Your task to perform on an android device: Open the stopwatch Image 0: 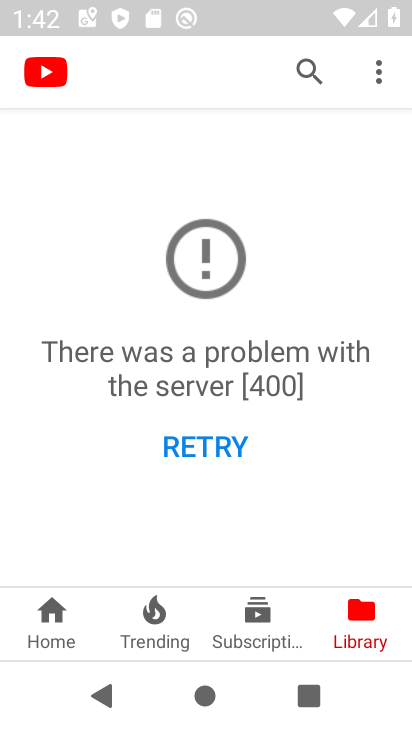
Step 0: press back button
Your task to perform on an android device: Open the stopwatch Image 1: 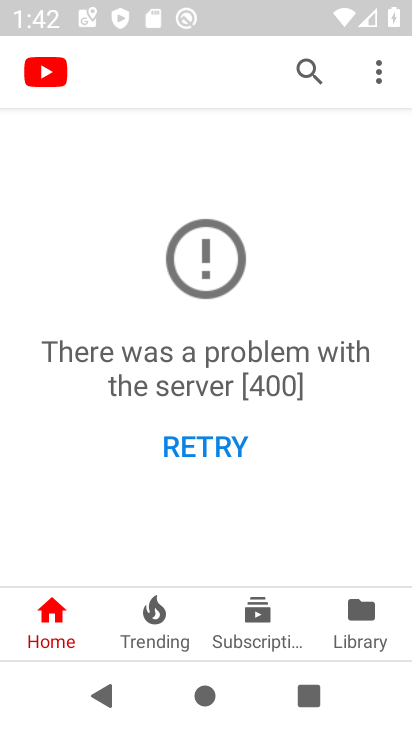
Step 1: press back button
Your task to perform on an android device: Open the stopwatch Image 2: 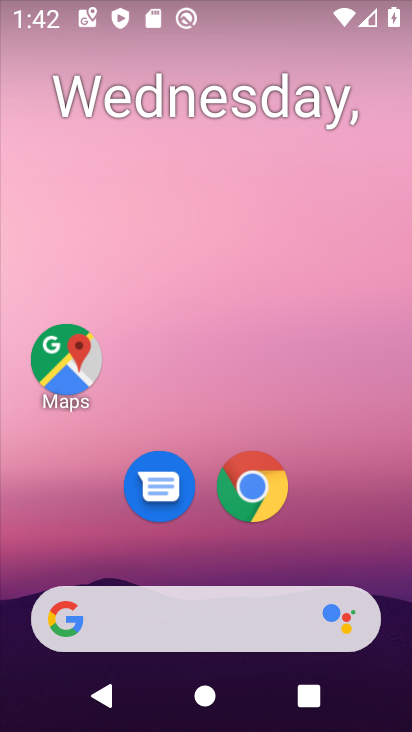
Step 2: drag from (152, 571) to (280, 75)
Your task to perform on an android device: Open the stopwatch Image 3: 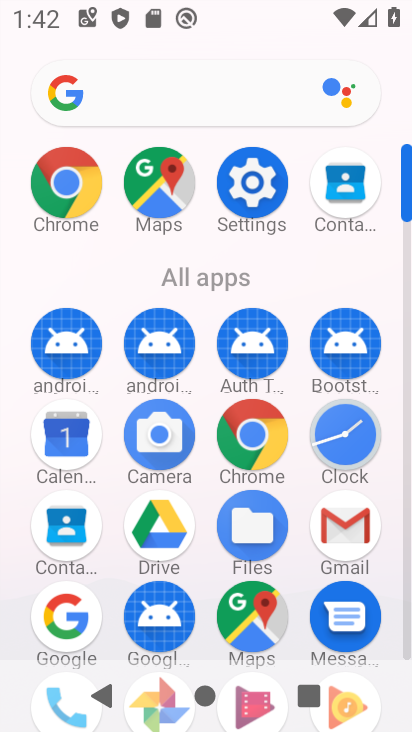
Step 3: click (341, 438)
Your task to perform on an android device: Open the stopwatch Image 4: 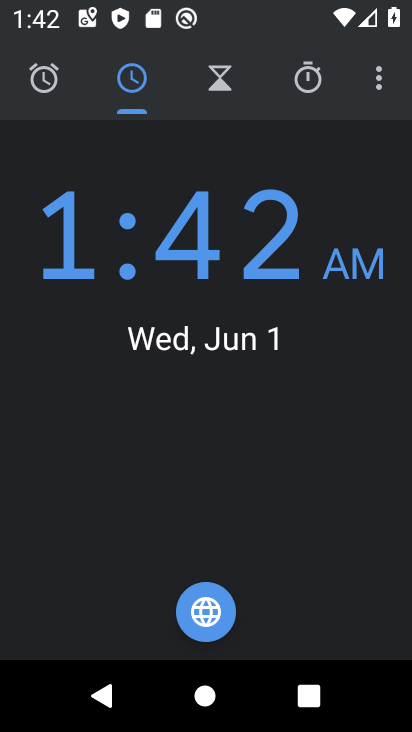
Step 4: click (294, 55)
Your task to perform on an android device: Open the stopwatch Image 5: 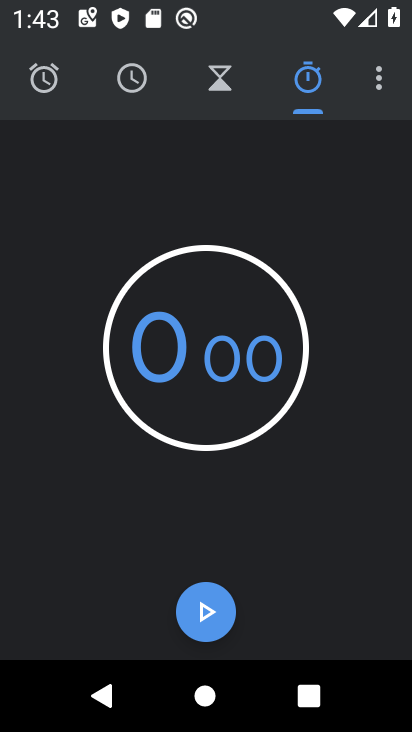
Step 5: task complete